Your task to perform on an android device: open a bookmark in the chrome app Image 0: 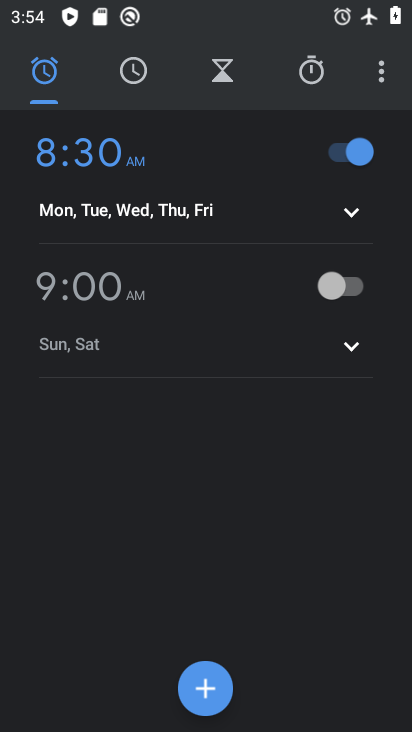
Step 0: press home button
Your task to perform on an android device: open a bookmark in the chrome app Image 1: 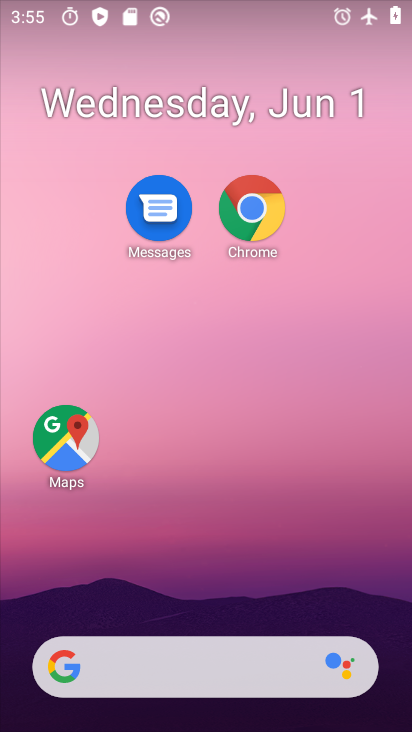
Step 1: click (253, 241)
Your task to perform on an android device: open a bookmark in the chrome app Image 2: 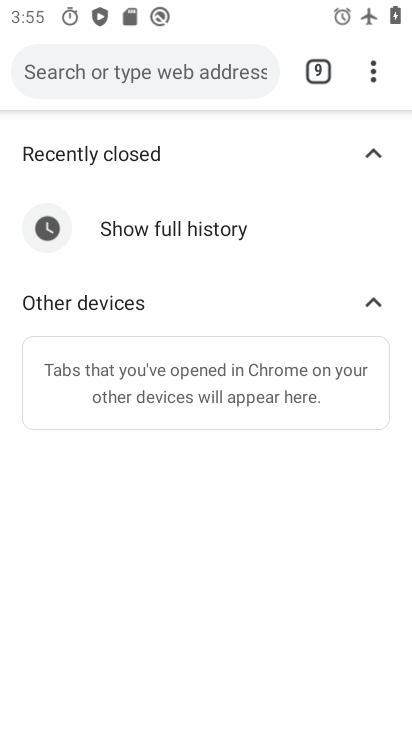
Step 2: task complete